Your task to perform on an android device: all mails in gmail Image 0: 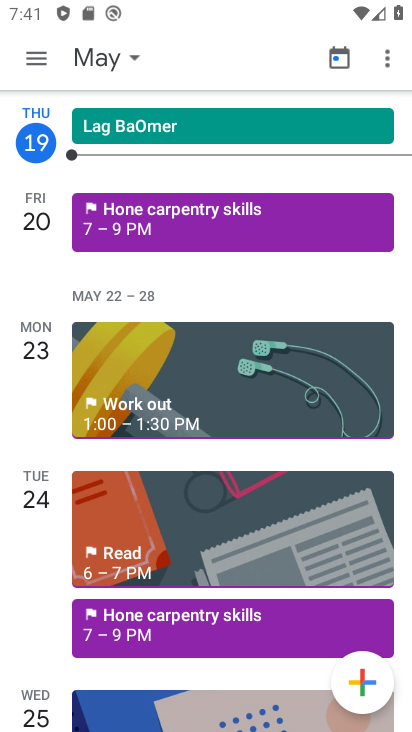
Step 0: press home button
Your task to perform on an android device: all mails in gmail Image 1: 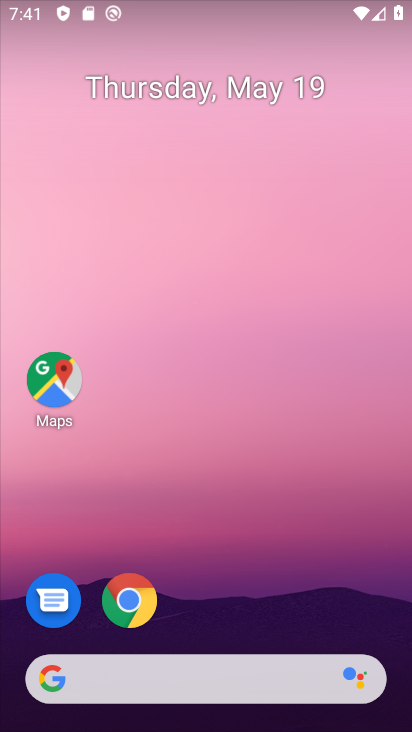
Step 1: drag from (233, 558) to (194, 7)
Your task to perform on an android device: all mails in gmail Image 2: 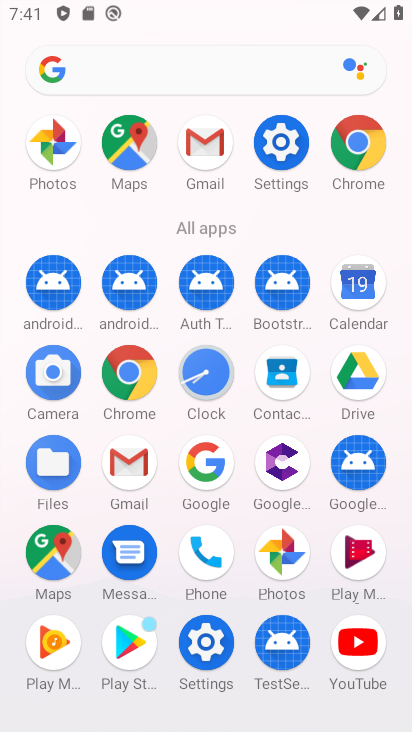
Step 2: click (192, 212)
Your task to perform on an android device: all mails in gmail Image 3: 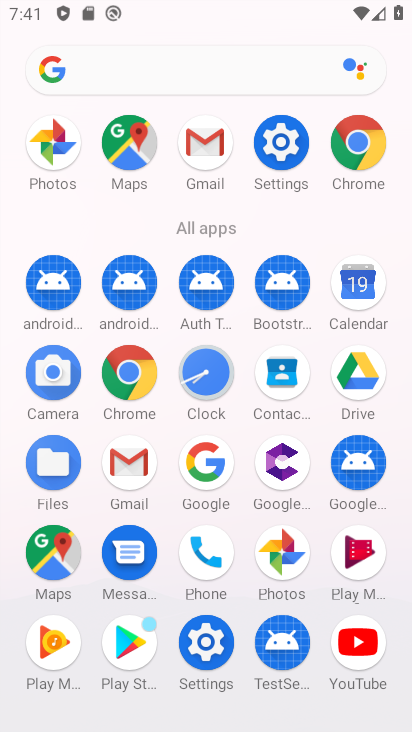
Step 3: click (197, 175)
Your task to perform on an android device: all mails in gmail Image 4: 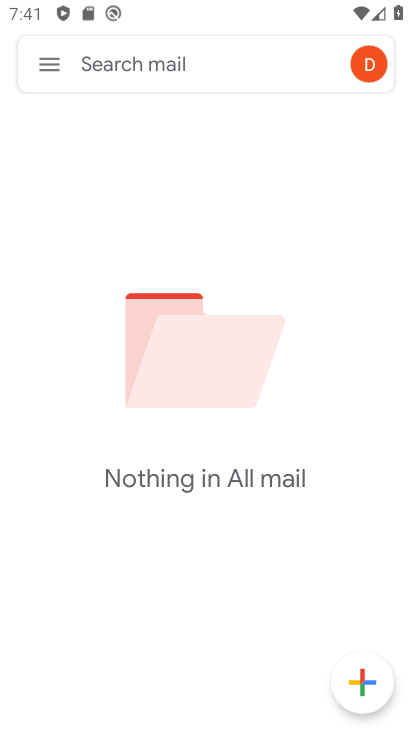
Step 4: task complete